Your task to perform on an android device: read, delete, or share a saved page in the chrome app Image 0: 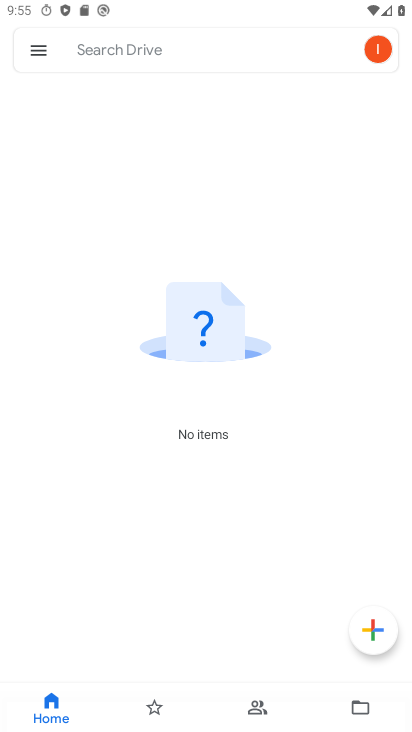
Step 0: press home button
Your task to perform on an android device: read, delete, or share a saved page in the chrome app Image 1: 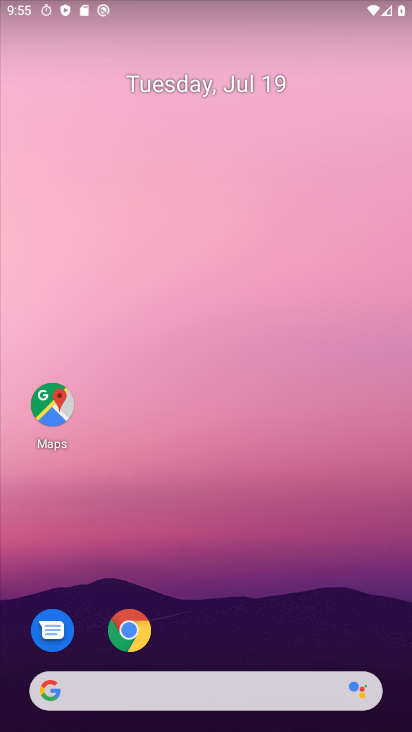
Step 1: click (131, 622)
Your task to perform on an android device: read, delete, or share a saved page in the chrome app Image 2: 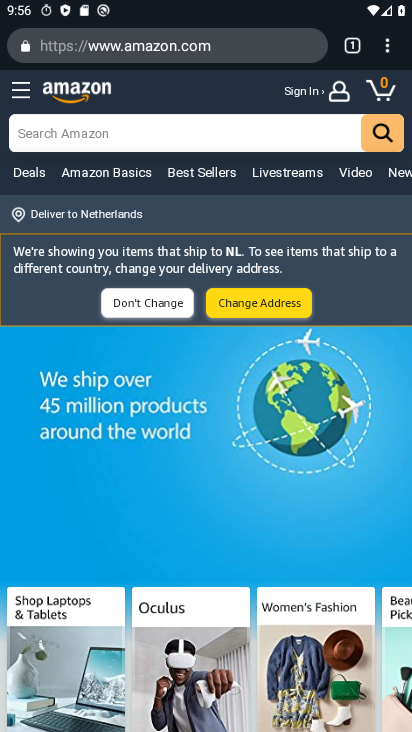
Step 2: click (358, 45)
Your task to perform on an android device: read, delete, or share a saved page in the chrome app Image 3: 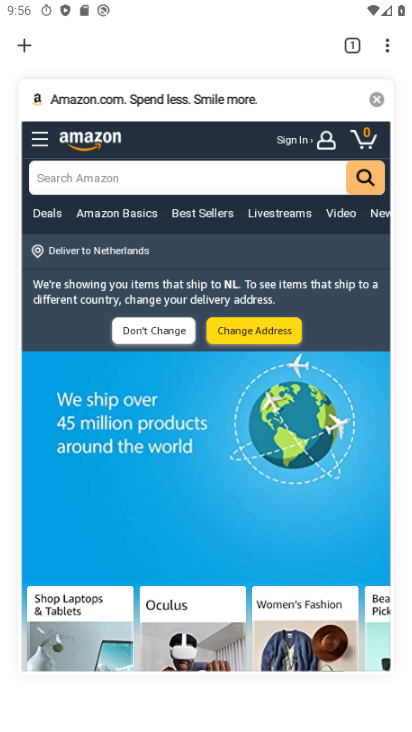
Step 3: click (373, 101)
Your task to perform on an android device: read, delete, or share a saved page in the chrome app Image 4: 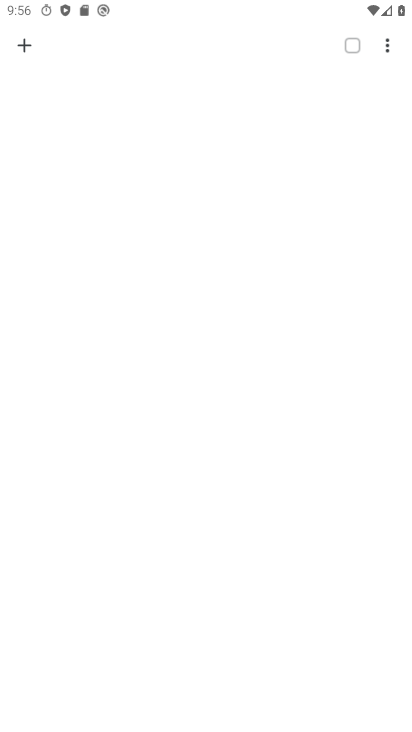
Step 4: click (18, 45)
Your task to perform on an android device: read, delete, or share a saved page in the chrome app Image 5: 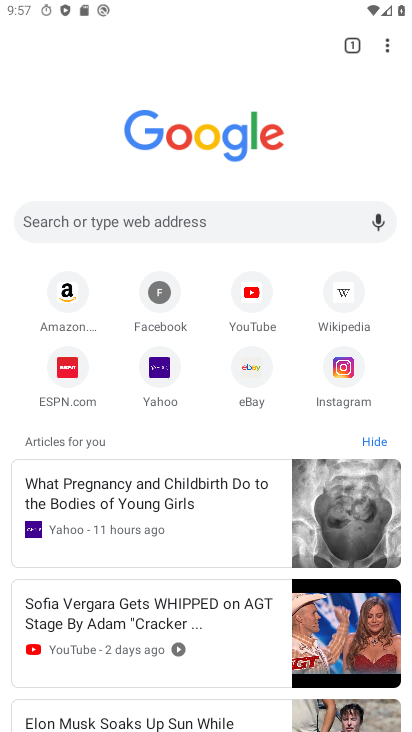
Step 5: task complete